Your task to perform on an android device: Open eBay Image 0: 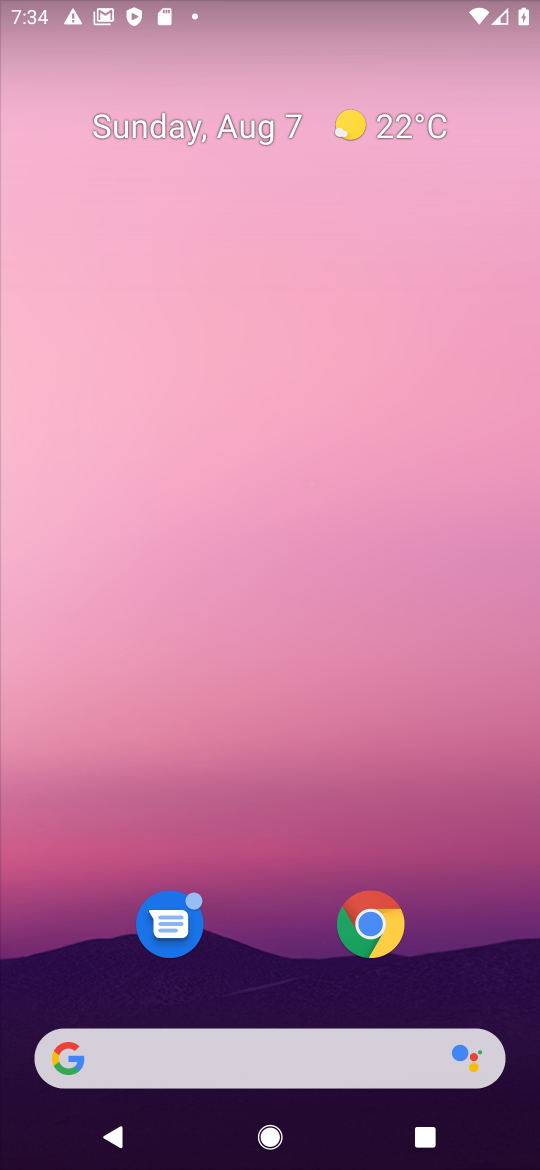
Step 0: click (312, 1063)
Your task to perform on an android device: Open eBay Image 1: 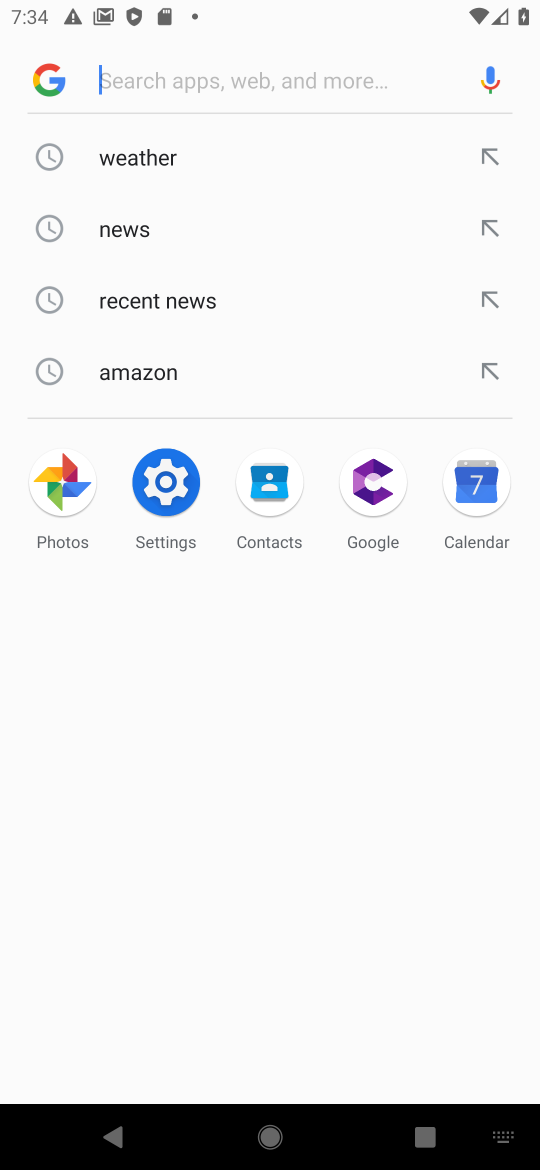
Step 1: type "ebay"
Your task to perform on an android device: Open eBay Image 2: 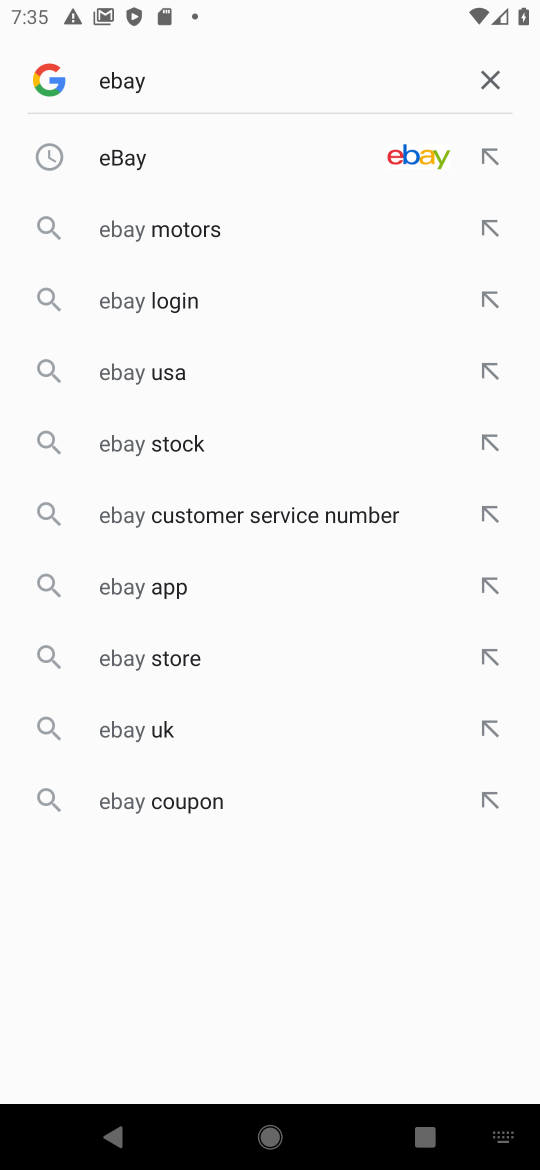
Step 2: click (299, 165)
Your task to perform on an android device: Open eBay Image 3: 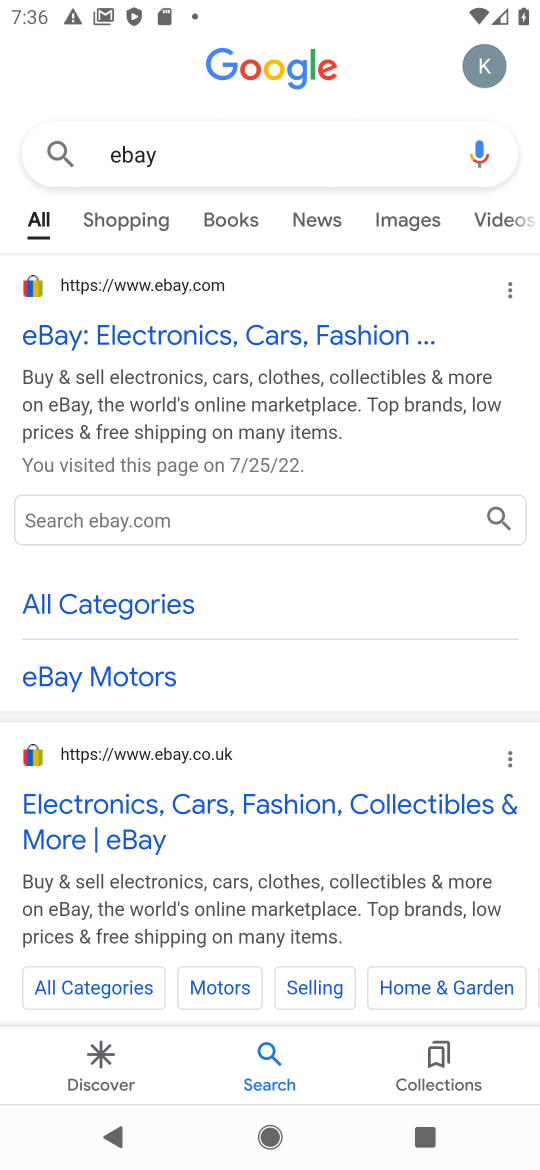
Step 3: click (73, 344)
Your task to perform on an android device: Open eBay Image 4: 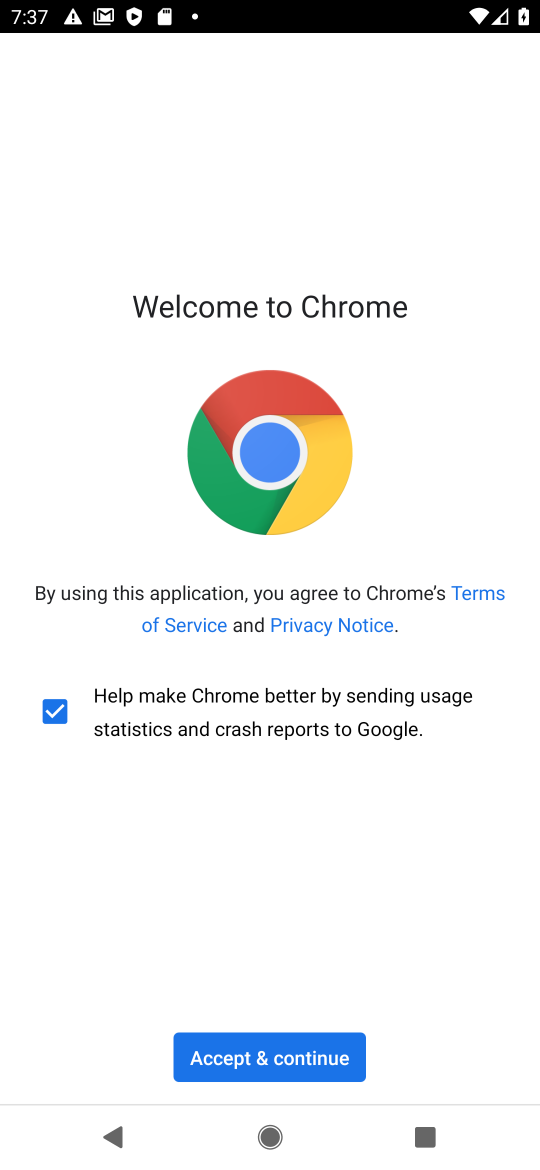
Step 4: click (344, 1051)
Your task to perform on an android device: Open eBay Image 5: 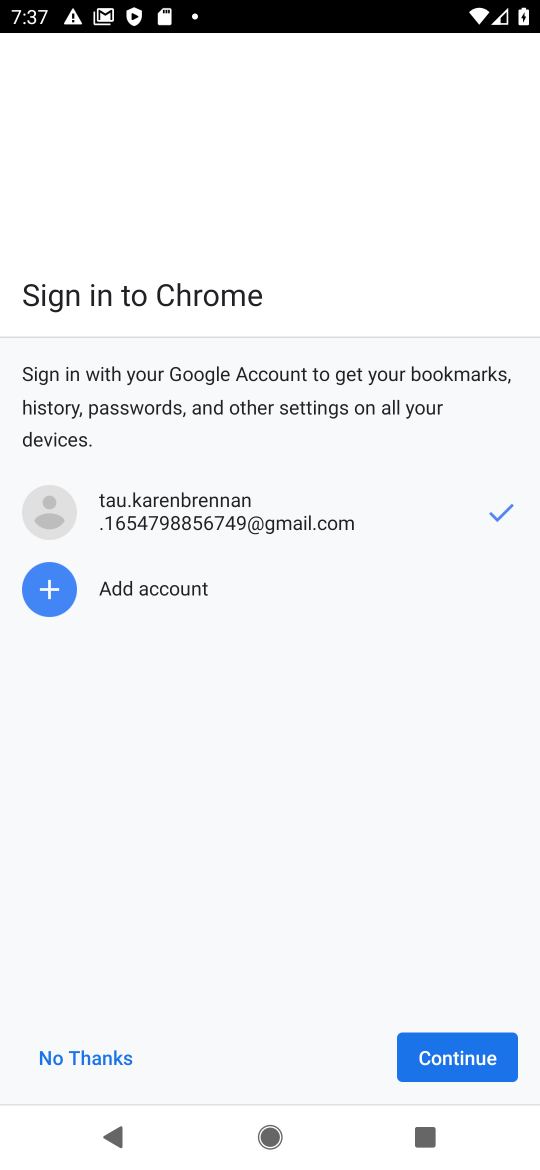
Step 5: click (412, 1054)
Your task to perform on an android device: Open eBay Image 6: 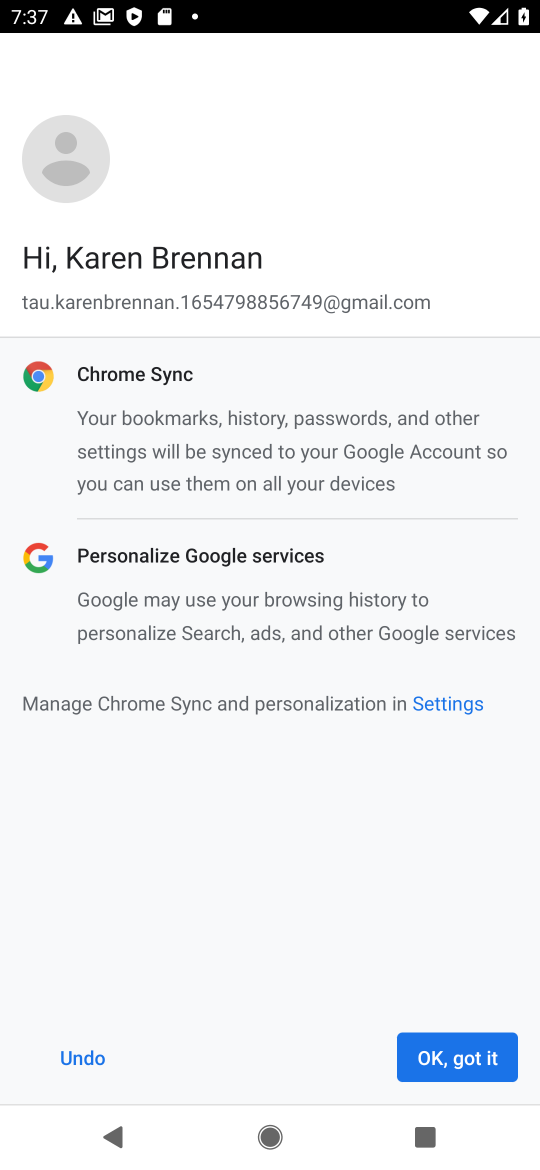
Step 6: click (430, 1068)
Your task to perform on an android device: Open eBay Image 7: 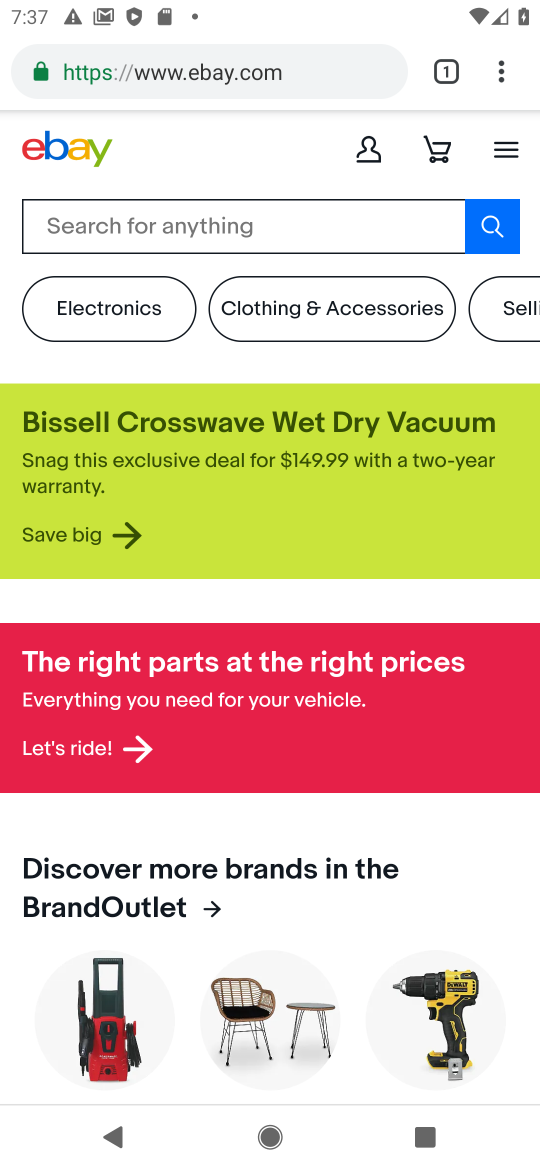
Step 7: task complete